Your task to perform on an android device: star an email in the gmail app Image 0: 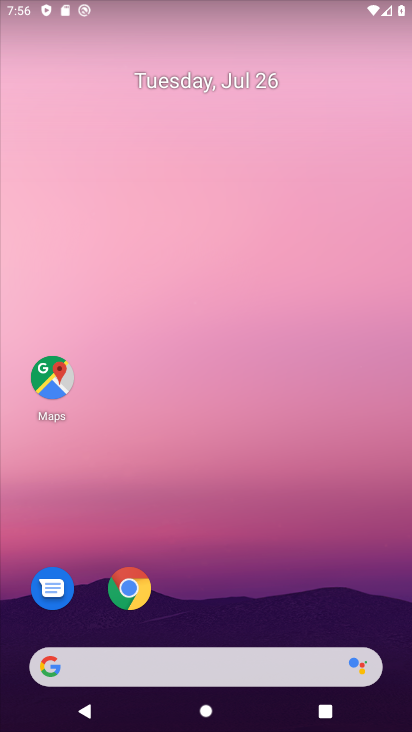
Step 0: drag from (327, 590) to (243, 83)
Your task to perform on an android device: star an email in the gmail app Image 1: 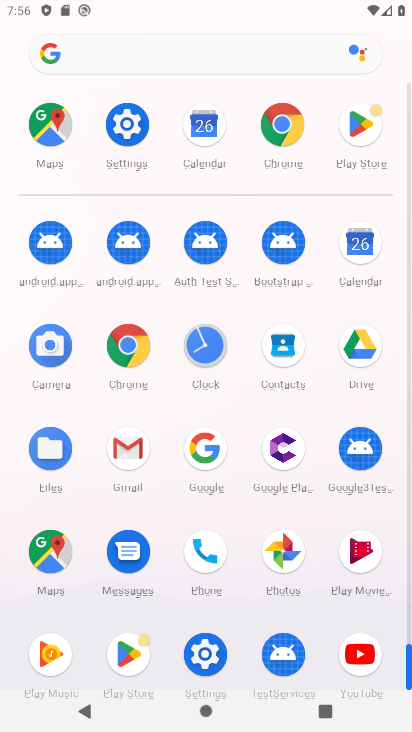
Step 1: click (130, 461)
Your task to perform on an android device: star an email in the gmail app Image 2: 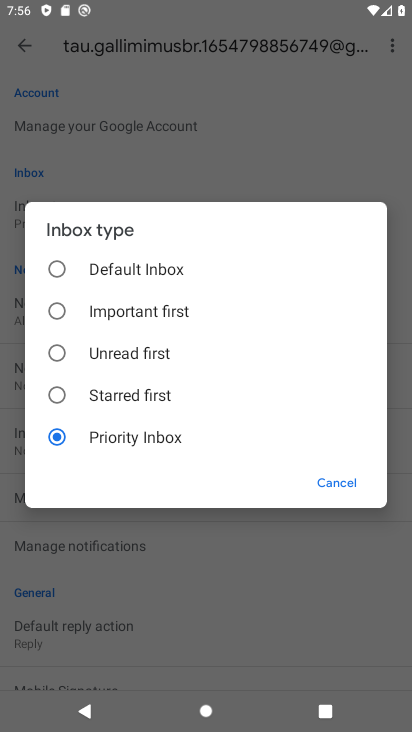
Step 2: press home button
Your task to perform on an android device: star an email in the gmail app Image 3: 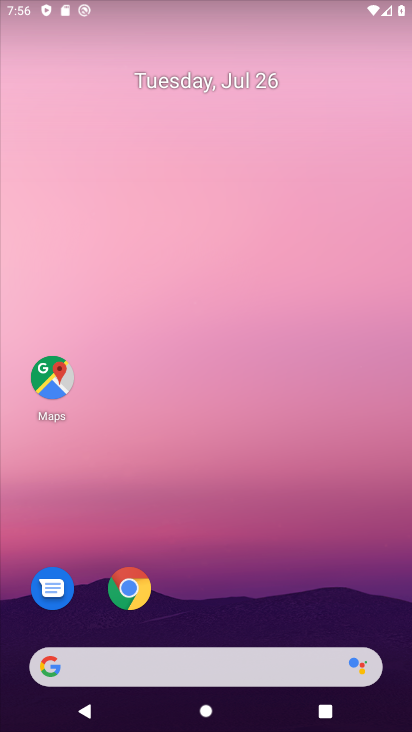
Step 3: drag from (370, 571) to (379, 5)
Your task to perform on an android device: star an email in the gmail app Image 4: 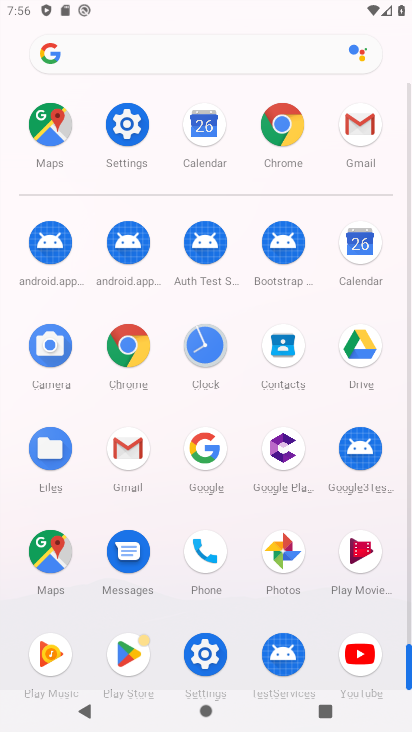
Step 4: click (378, 125)
Your task to perform on an android device: star an email in the gmail app Image 5: 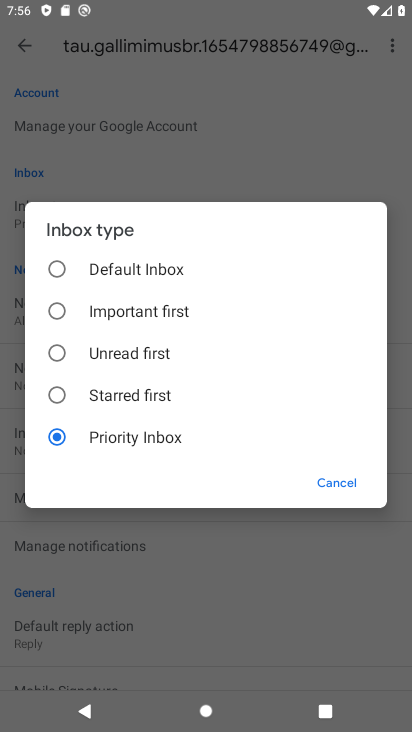
Step 5: click (351, 490)
Your task to perform on an android device: star an email in the gmail app Image 6: 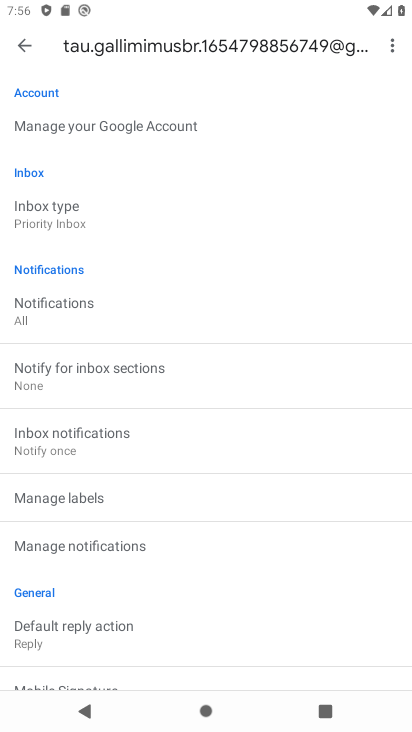
Step 6: click (16, 34)
Your task to perform on an android device: star an email in the gmail app Image 7: 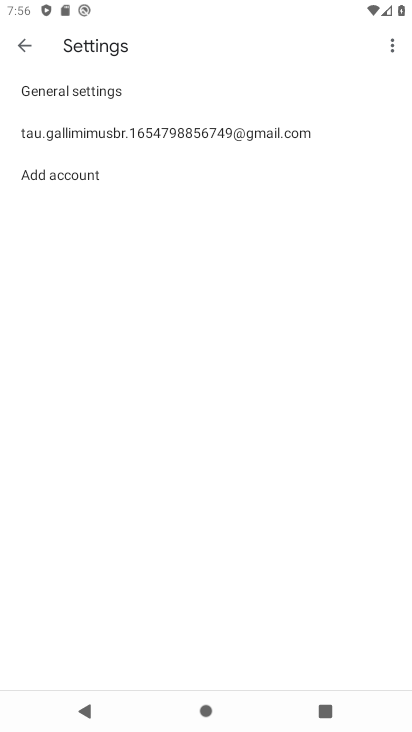
Step 7: click (19, 40)
Your task to perform on an android device: star an email in the gmail app Image 8: 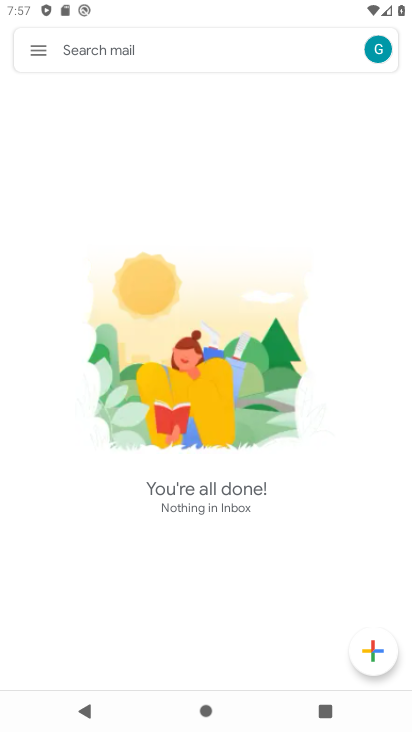
Step 8: click (30, 40)
Your task to perform on an android device: star an email in the gmail app Image 9: 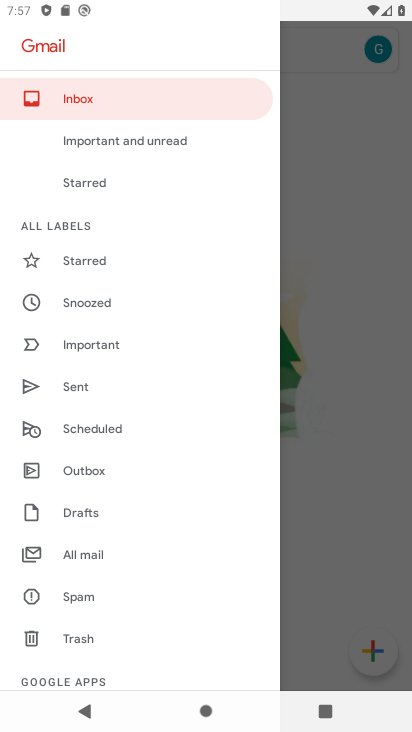
Step 9: drag from (86, 609) to (157, 296)
Your task to perform on an android device: star an email in the gmail app Image 10: 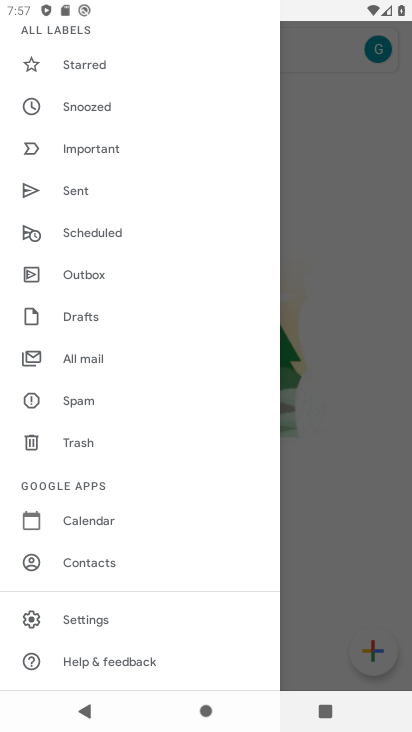
Step 10: click (92, 355)
Your task to perform on an android device: star an email in the gmail app Image 11: 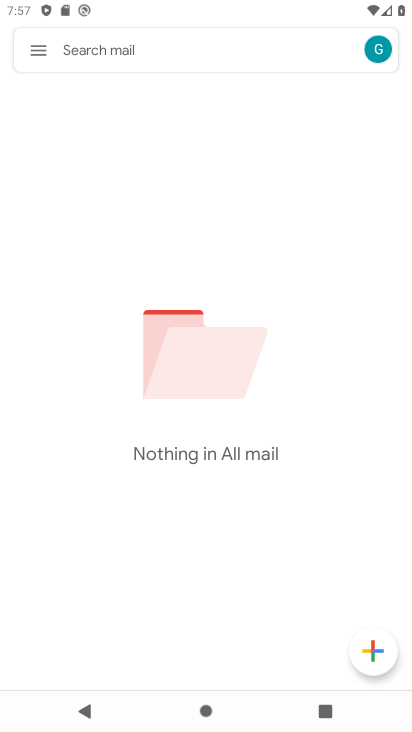
Step 11: task complete